Your task to perform on an android device: What's the weather going to be this weekend? Image 0: 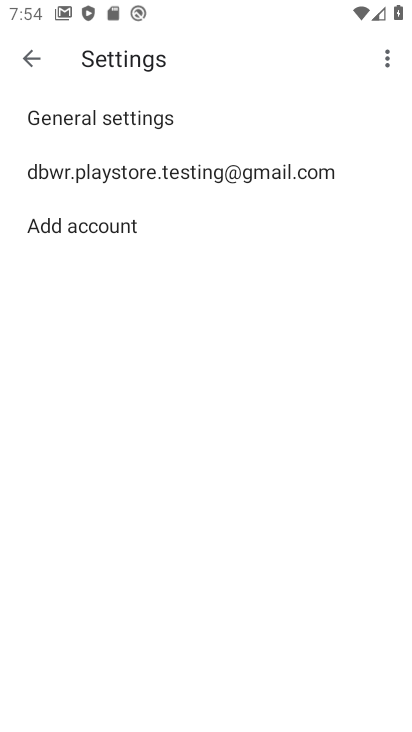
Step 0: press home button
Your task to perform on an android device: What's the weather going to be this weekend? Image 1: 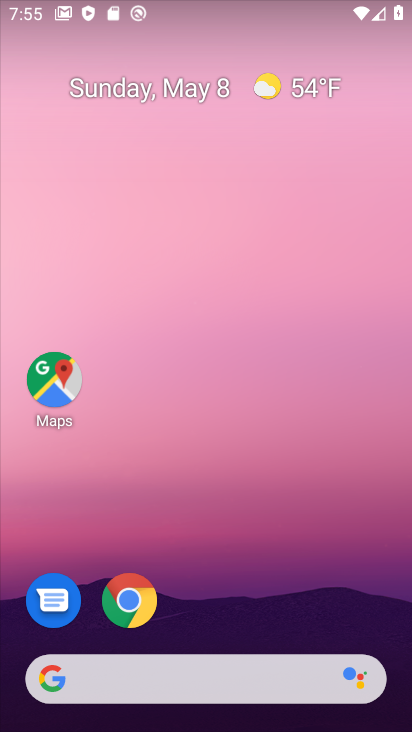
Step 1: click (299, 88)
Your task to perform on an android device: What's the weather going to be this weekend? Image 2: 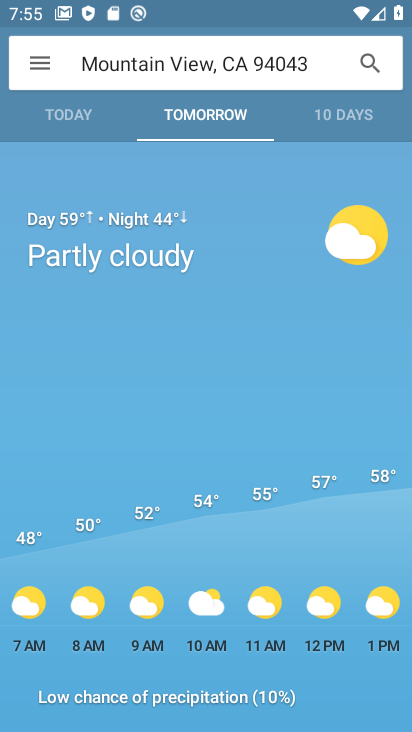
Step 2: click (355, 114)
Your task to perform on an android device: What's the weather going to be this weekend? Image 3: 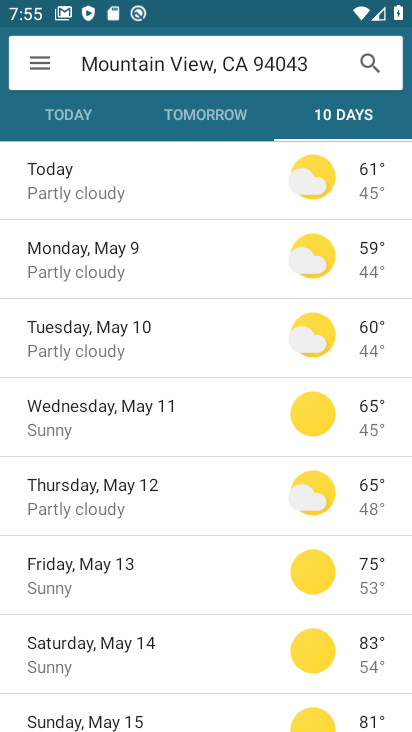
Step 3: task complete